Your task to perform on an android device: turn off location Image 0: 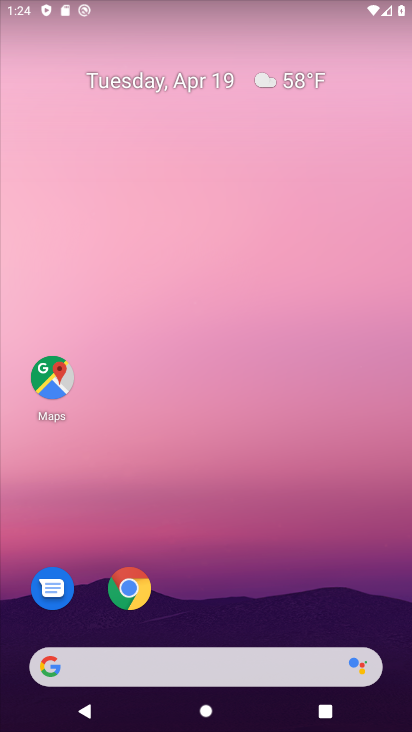
Step 0: drag from (313, 533) to (371, 77)
Your task to perform on an android device: turn off location Image 1: 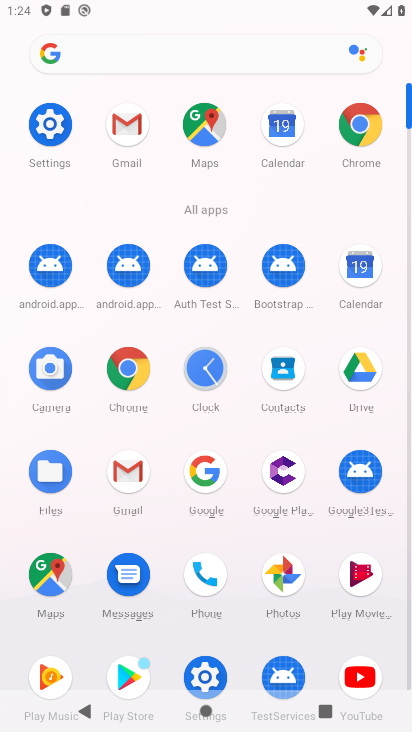
Step 1: click (52, 109)
Your task to perform on an android device: turn off location Image 2: 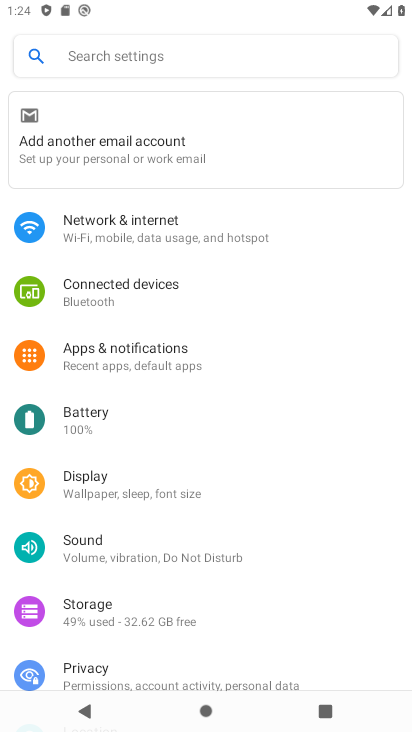
Step 2: drag from (180, 602) to (275, 121)
Your task to perform on an android device: turn off location Image 3: 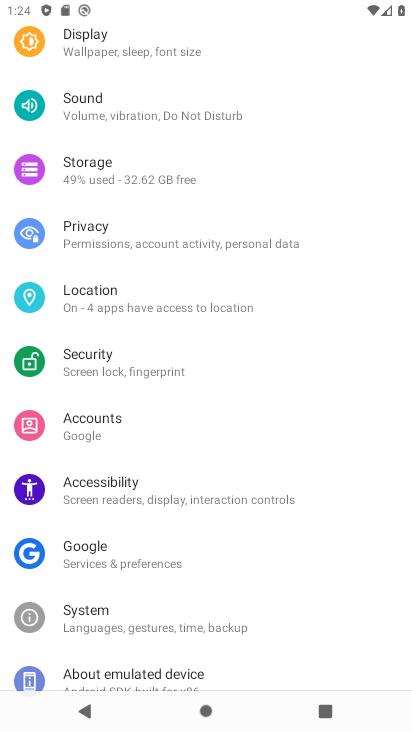
Step 3: click (171, 302)
Your task to perform on an android device: turn off location Image 4: 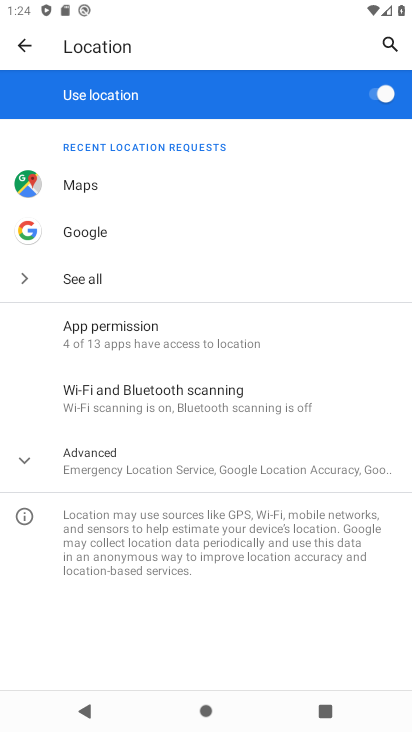
Step 4: click (371, 89)
Your task to perform on an android device: turn off location Image 5: 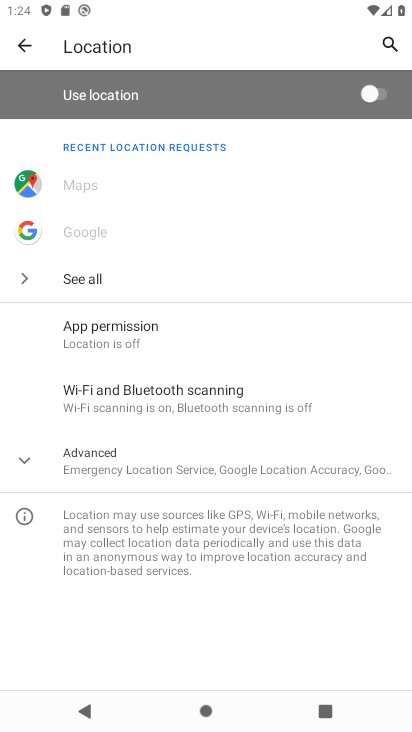
Step 5: task complete